Your task to perform on an android device: turn on the 12-hour format for clock Image 0: 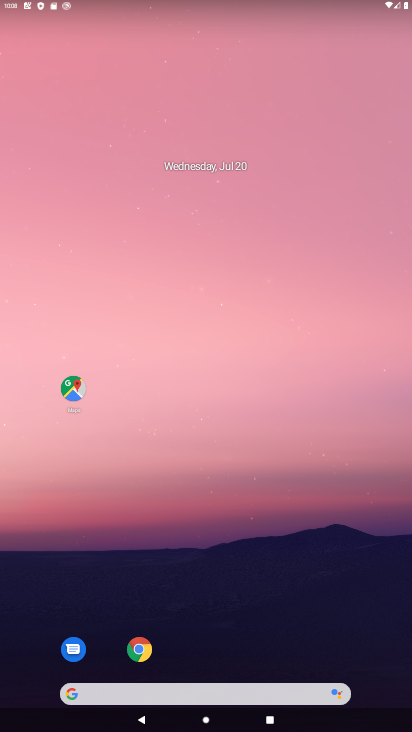
Step 0: task complete